Your task to perform on an android device: See recent photos Image 0: 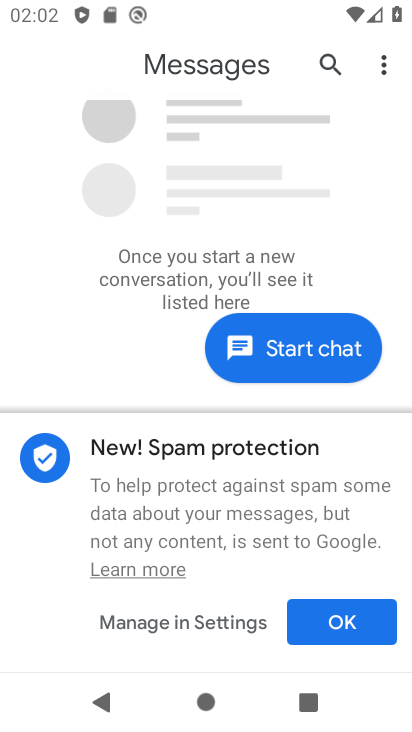
Step 0: press home button
Your task to perform on an android device: See recent photos Image 1: 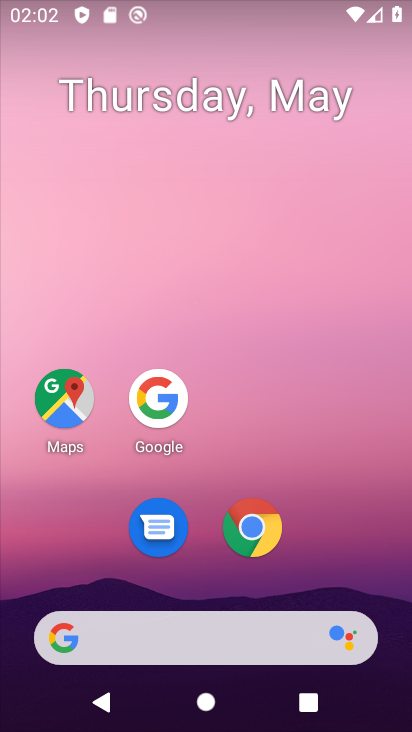
Step 1: drag from (216, 574) to (246, 62)
Your task to perform on an android device: See recent photos Image 2: 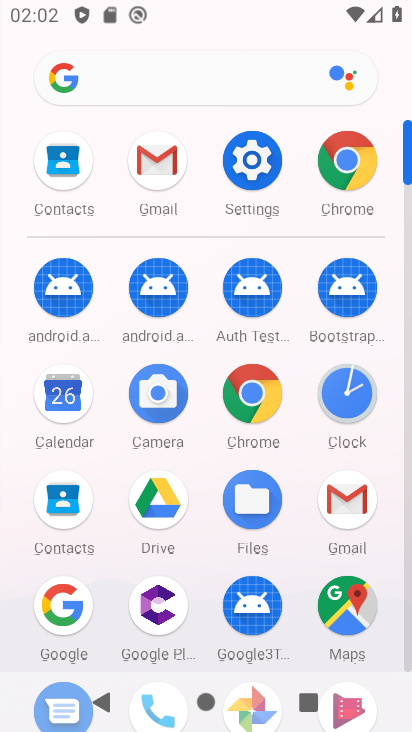
Step 2: click (211, 87)
Your task to perform on an android device: See recent photos Image 3: 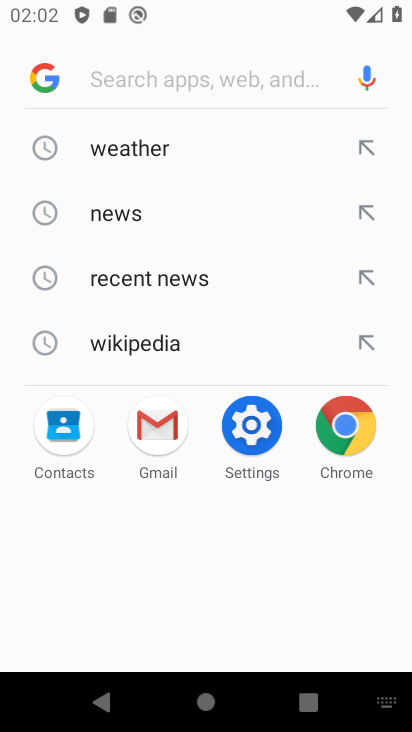
Step 3: press home button
Your task to perform on an android device: See recent photos Image 4: 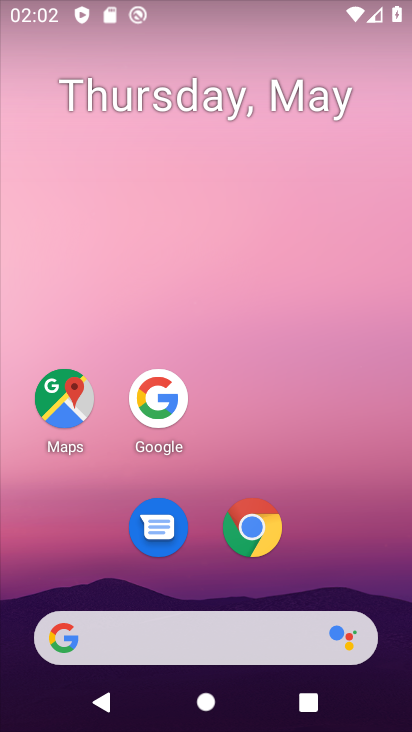
Step 4: drag from (154, 558) to (238, 92)
Your task to perform on an android device: See recent photos Image 5: 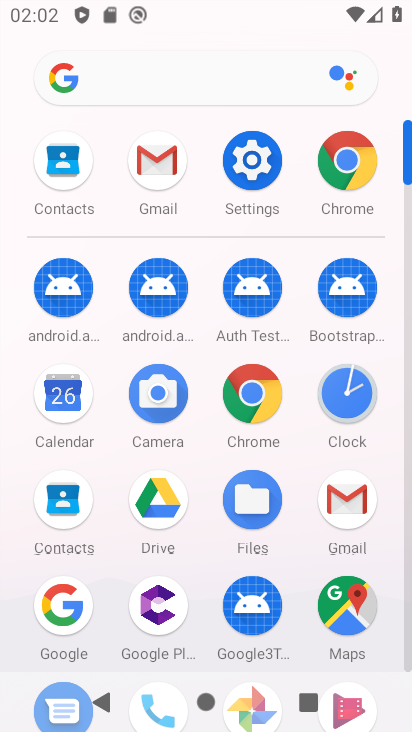
Step 5: drag from (200, 632) to (222, 188)
Your task to perform on an android device: See recent photos Image 6: 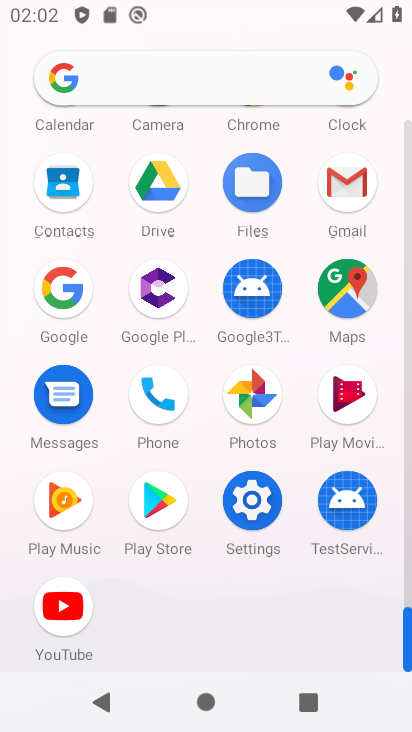
Step 6: click (247, 416)
Your task to perform on an android device: See recent photos Image 7: 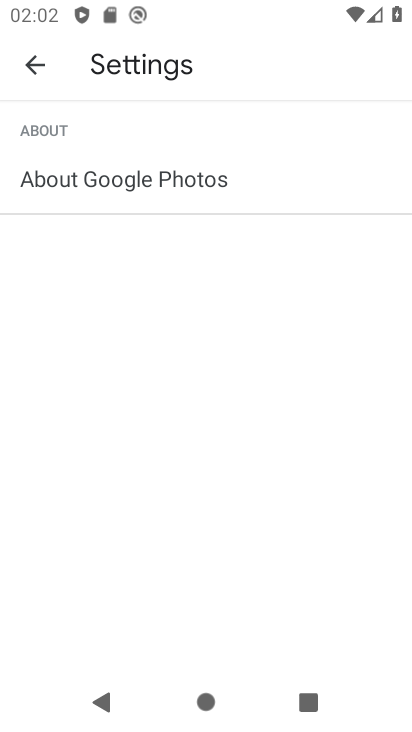
Step 7: click (45, 61)
Your task to perform on an android device: See recent photos Image 8: 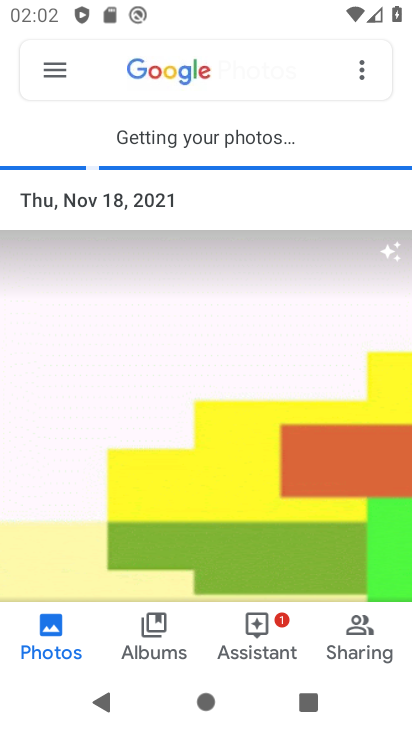
Step 8: task complete